Your task to perform on an android device: See recent photos Image 0: 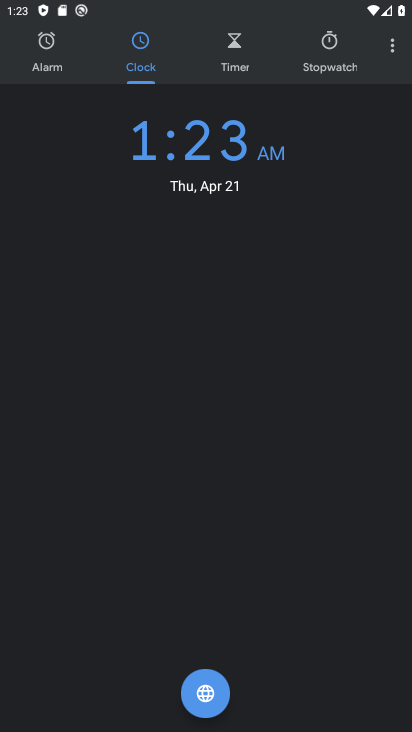
Step 0: press home button
Your task to perform on an android device: See recent photos Image 1: 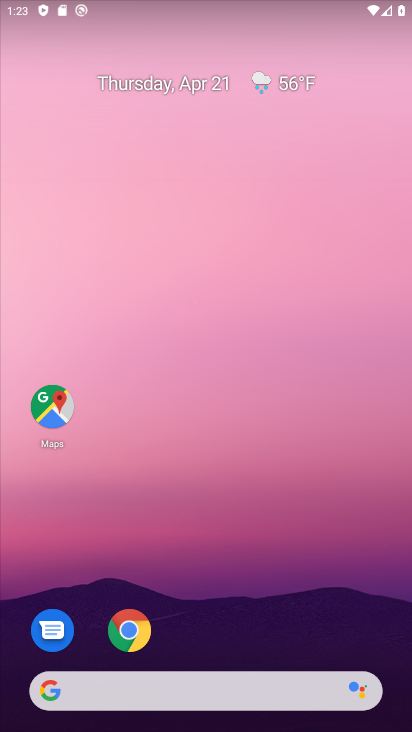
Step 1: drag from (275, 575) to (225, 47)
Your task to perform on an android device: See recent photos Image 2: 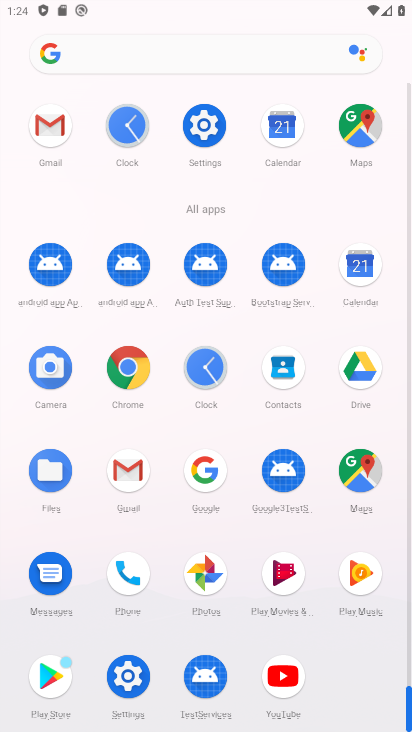
Step 2: click (204, 568)
Your task to perform on an android device: See recent photos Image 3: 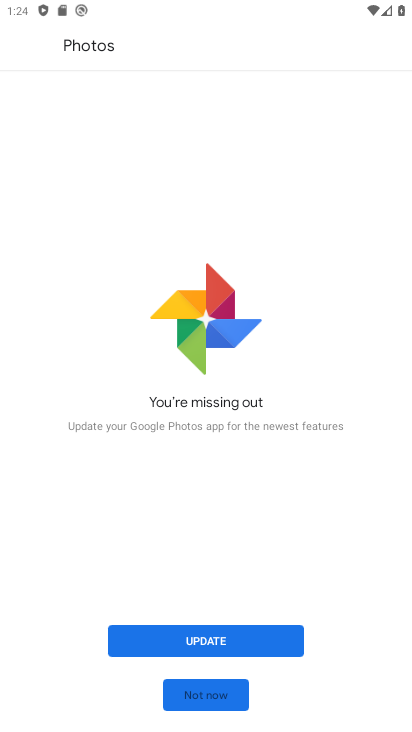
Step 3: click (206, 699)
Your task to perform on an android device: See recent photos Image 4: 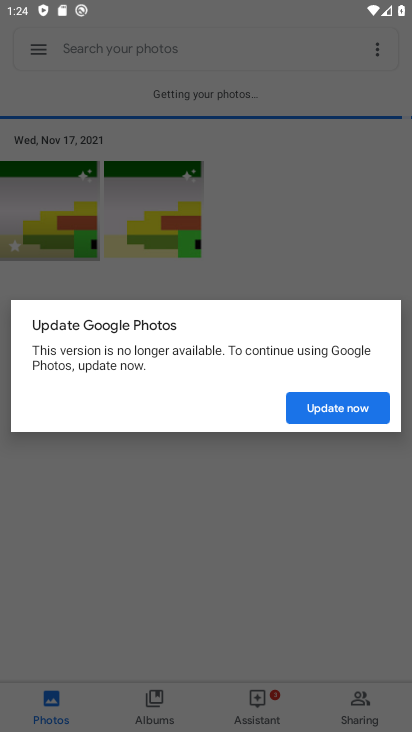
Step 4: click (313, 414)
Your task to perform on an android device: See recent photos Image 5: 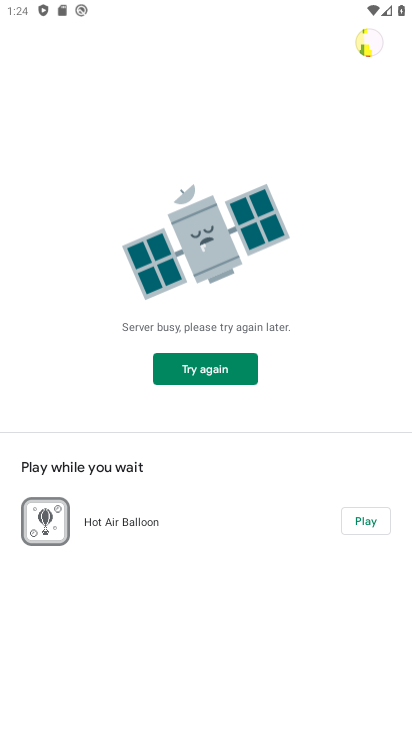
Step 5: click (234, 374)
Your task to perform on an android device: See recent photos Image 6: 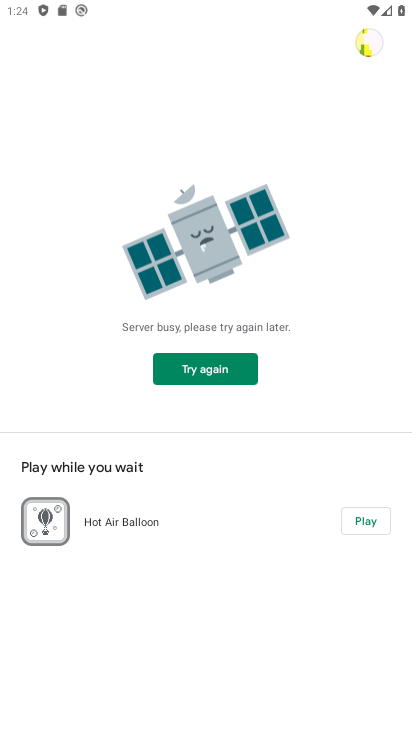
Step 6: press back button
Your task to perform on an android device: See recent photos Image 7: 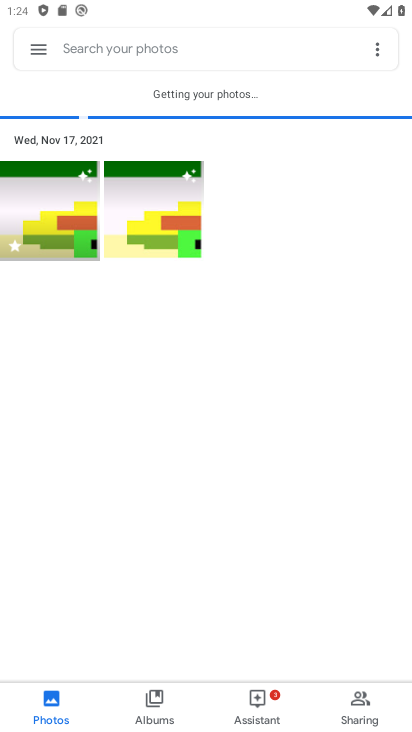
Step 7: click (29, 694)
Your task to perform on an android device: See recent photos Image 8: 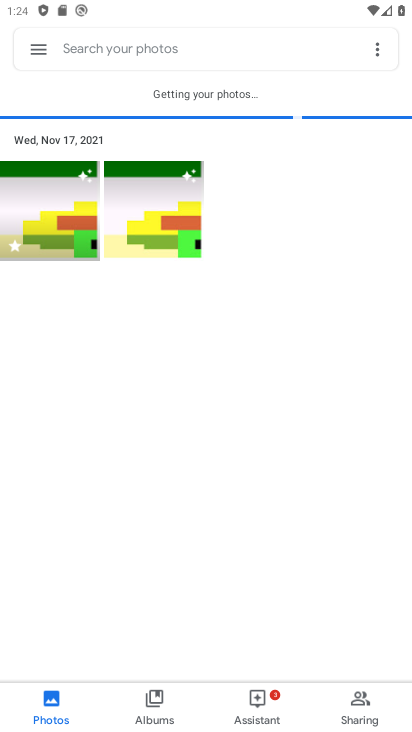
Step 8: click (18, 180)
Your task to perform on an android device: See recent photos Image 9: 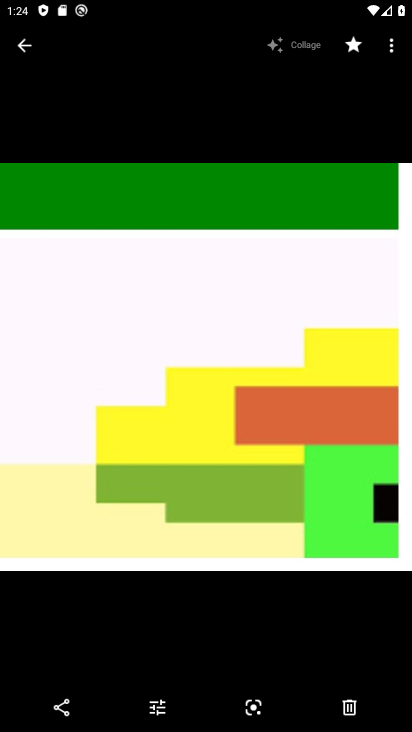
Step 9: task complete